Your task to perform on an android device: add a contact Image 0: 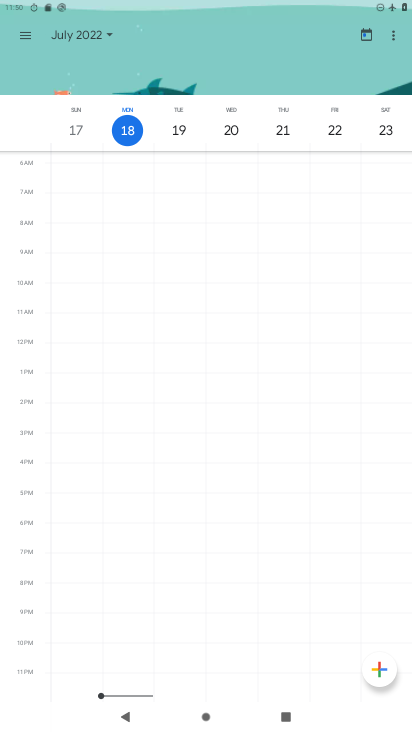
Step 0: press home button
Your task to perform on an android device: add a contact Image 1: 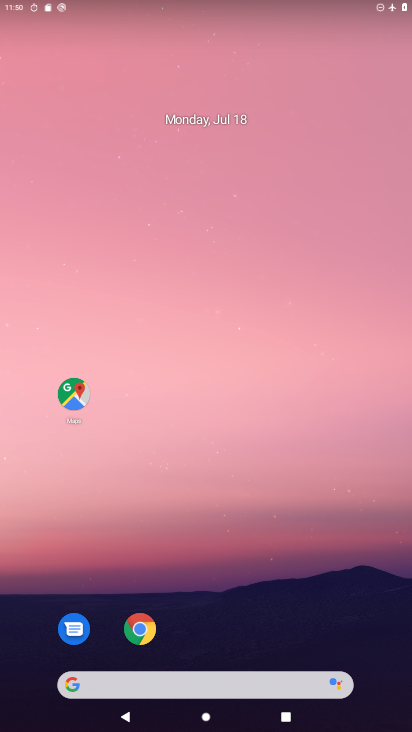
Step 1: drag from (256, 521) to (227, 31)
Your task to perform on an android device: add a contact Image 2: 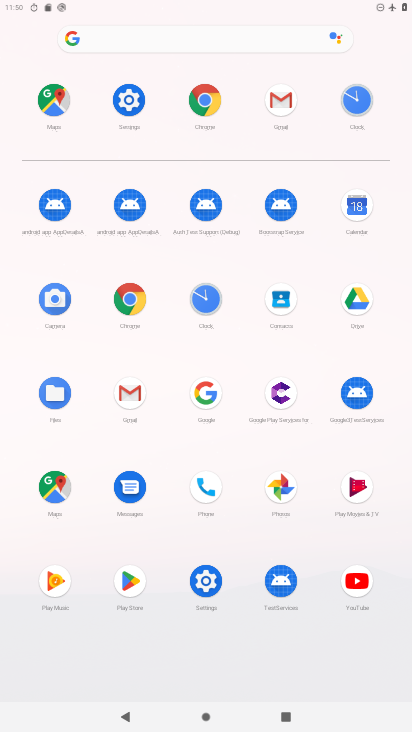
Step 2: click (273, 301)
Your task to perform on an android device: add a contact Image 3: 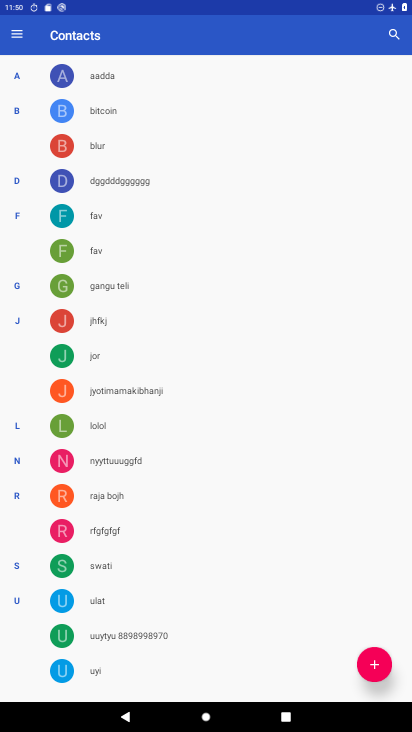
Step 3: click (375, 668)
Your task to perform on an android device: add a contact Image 4: 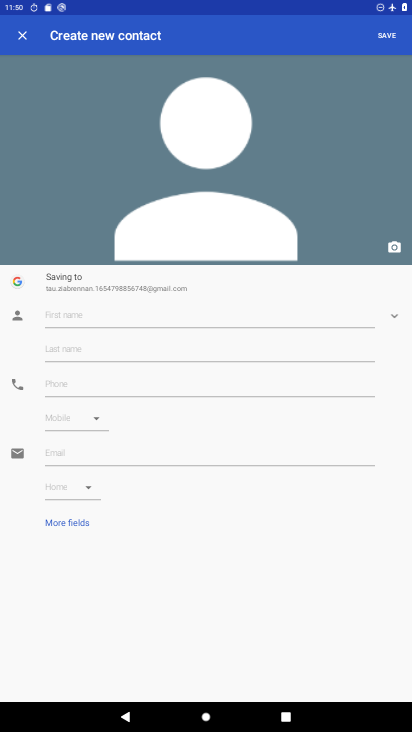
Step 4: click (189, 314)
Your task to perform on an android device: add a contact Image 5: 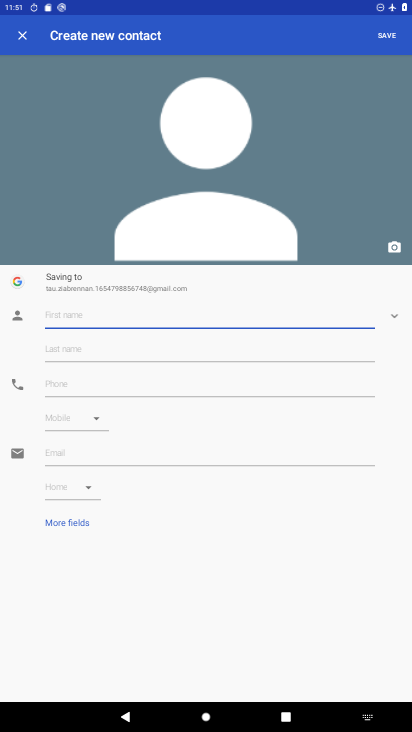
Step 5: type "popop"
Your task to perform on an android device: add a contact Image 6: 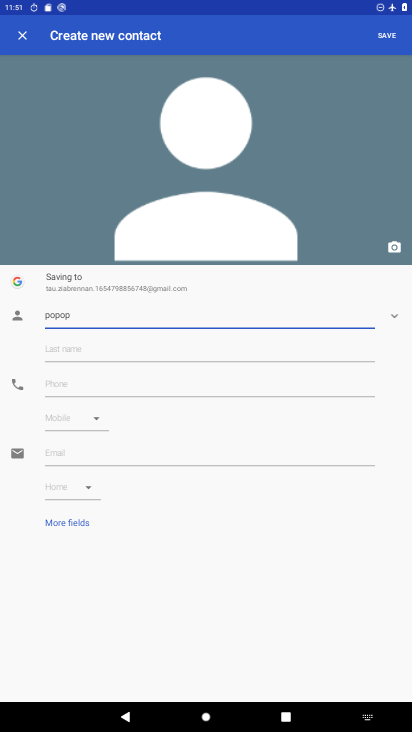
Step 6: click (388, 34)
Your task to perform on an android device: add a contact Image 7: 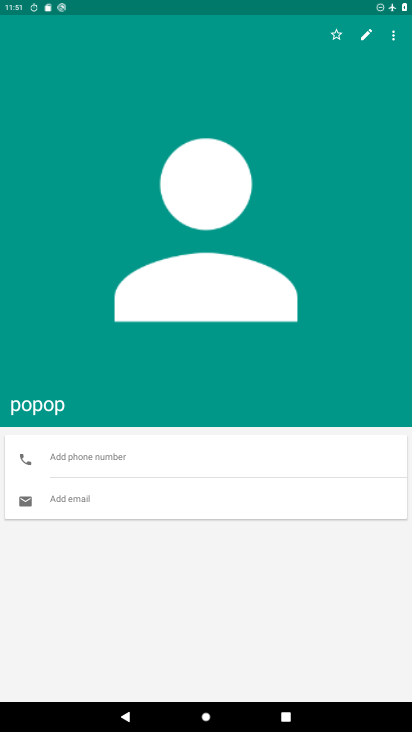
Step 7: task complete